Your task to perform on an android device: Show me the alarms in the clock app Image 0: 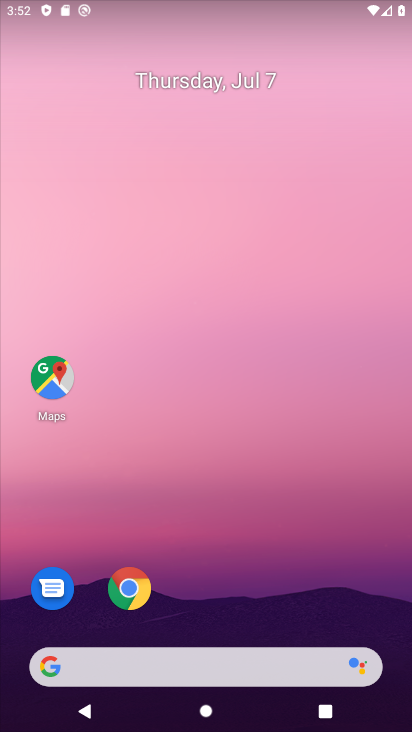
Step 0: drag from (219, 616) to (280, 12)
Your task to perform on an android device: Show me the alarms in the clock app Image 1: 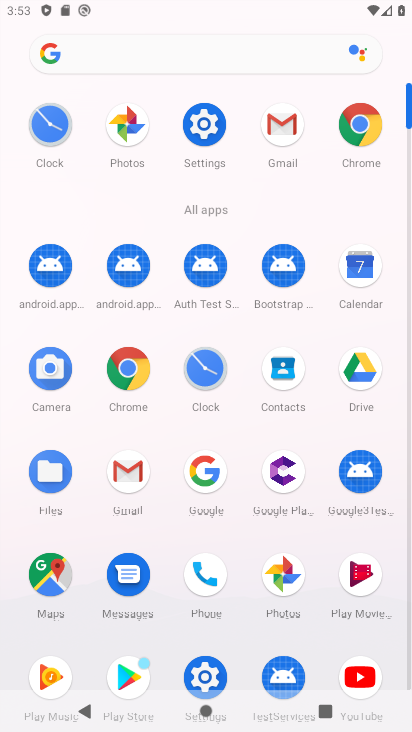
Step 1: click (47, 136)
Your task to perform on an android device: Show me the alarms in the clock app Image 2: 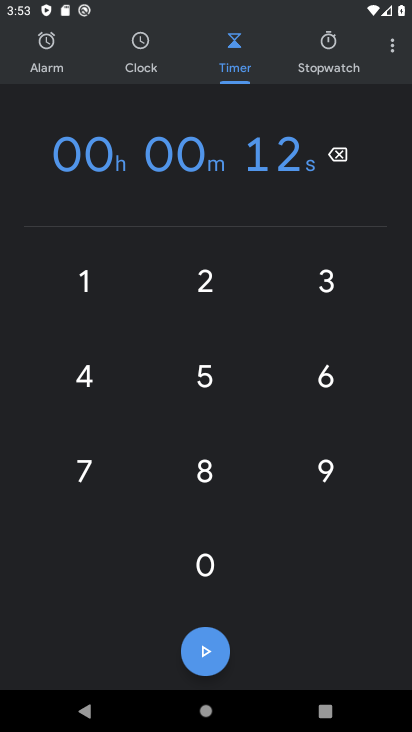
Step 2: click (42, 56)
Your task to perform on an android device: Show me the alarms in the clock app Image 3: 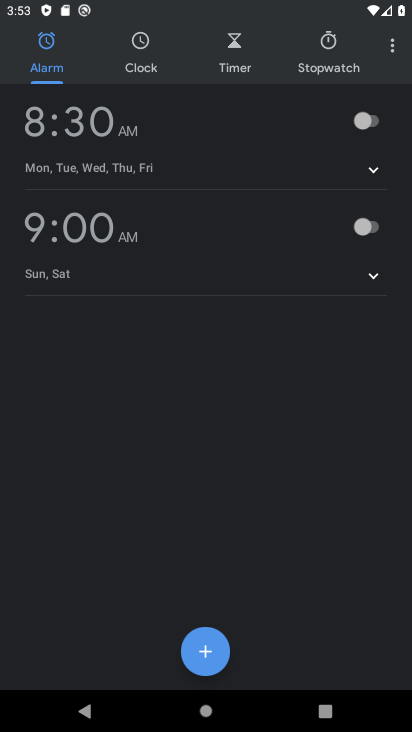
Step 3: task complete